Your task to perform on an android device: Go to Google Image 0: 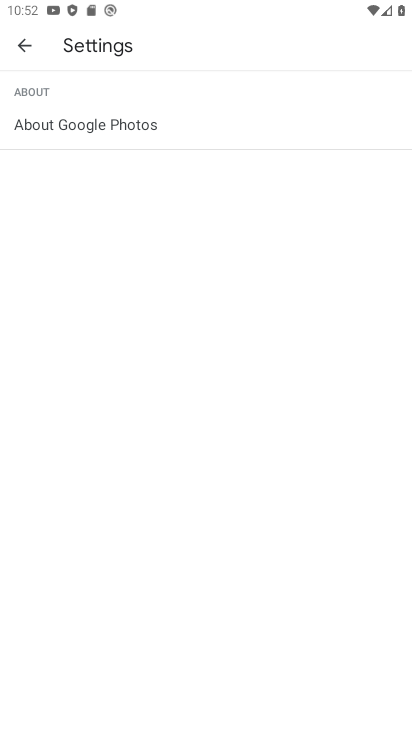
Step 0: press home button
Your task to perform on an android device: Go to Google Image 1: 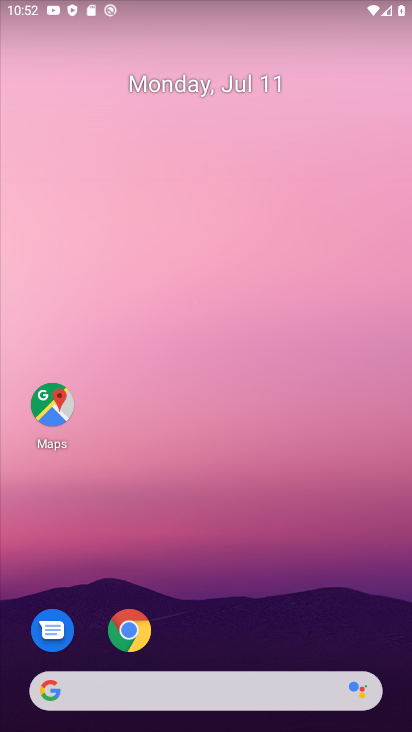
Step 1: click (84, 692)
Your task to perform on an android device: Go to Google Image 2: 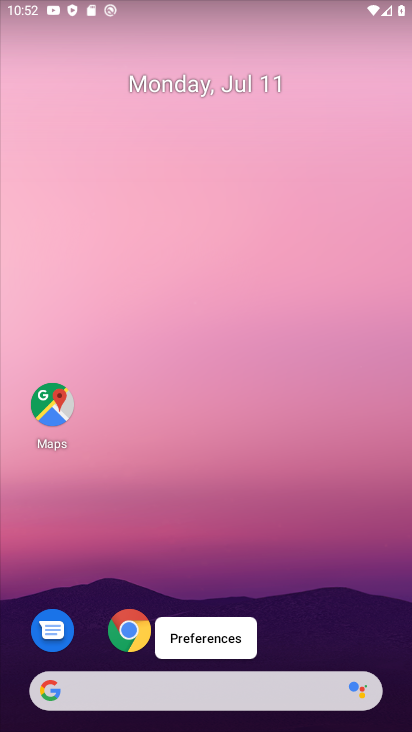
Step 2: click (140, 692)
Your task to perform on an android device: Go to Google Image 3: 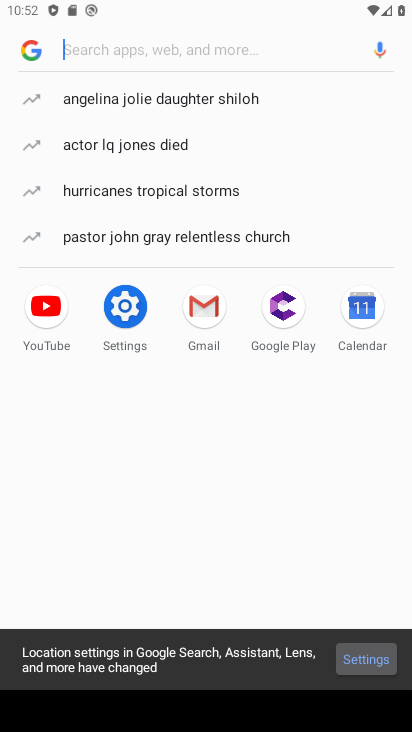
Step 3: click (35, 46)
Your task to perform on an android device: Go to Google Image 4: 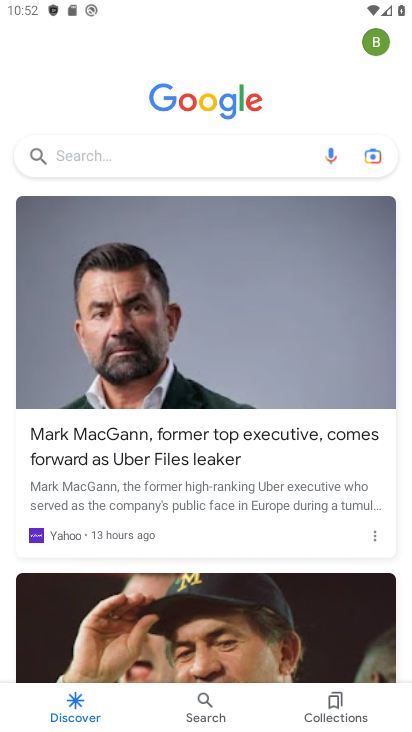
Step 4: task complete